Your task to perform on an android device: Open settings on Google Maps Image 0: 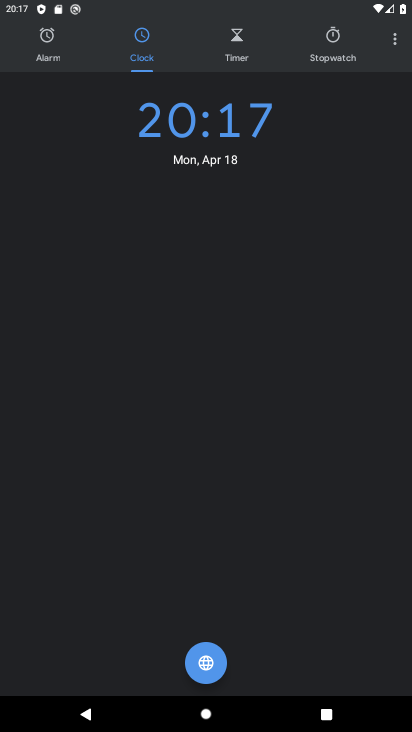
Step 0: press home button
Your task to perform on an android device: Open settings on Google Maps Image 1: 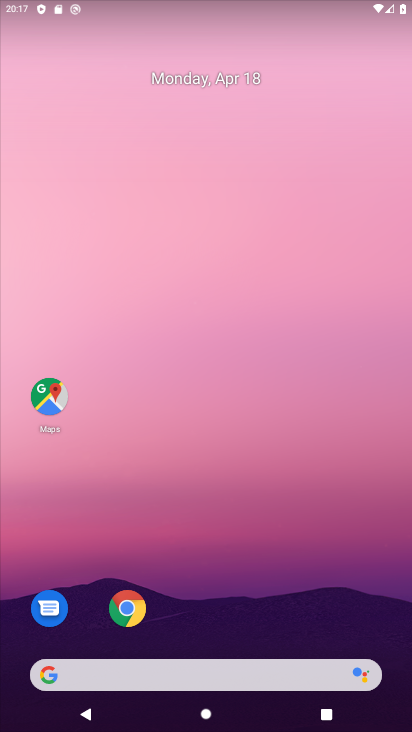
Step 1: click (45, 395)
Your task to perform on an android device: Open settings on Google Maps Image 2: 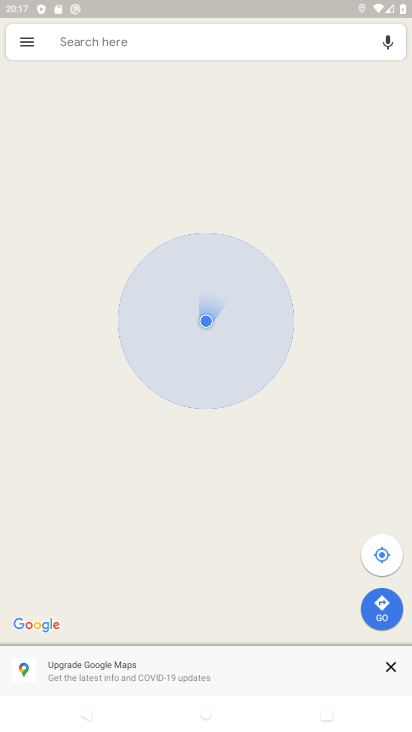
Step 2: click (27, 42)
Your task to perform on an android device: Open settings on Google Maps Image 3: 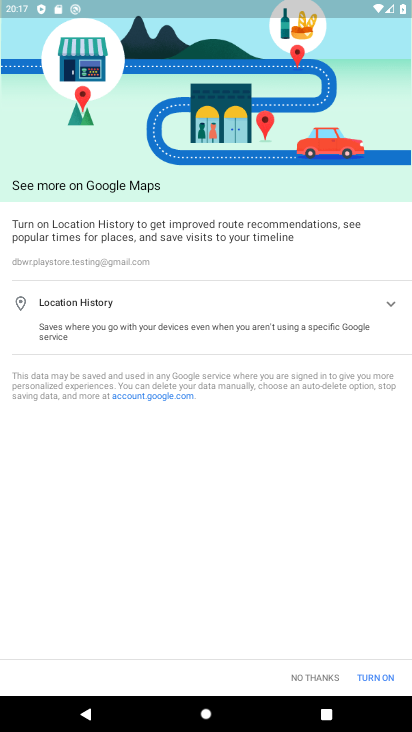
Step 3: click (308, 676)
Your task to perform on an android device: Open settings on Google Maps Image 4: 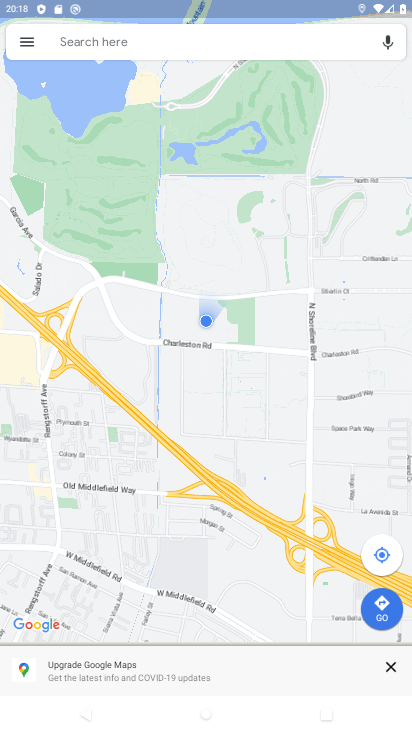
Step 4: click (23, 41)
Your task to perform on an android device: Open settings on Google Maps Image 5: 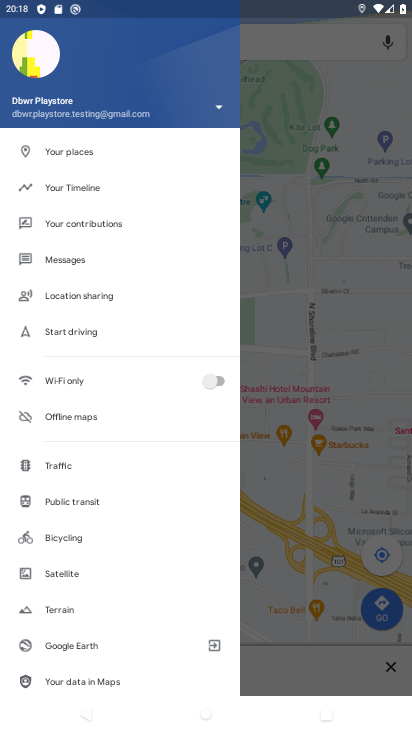
Step 5: drag from (114, 561) to (147, 259)
Your task to perform on an android device: Open settings on Google Maps Image 6: 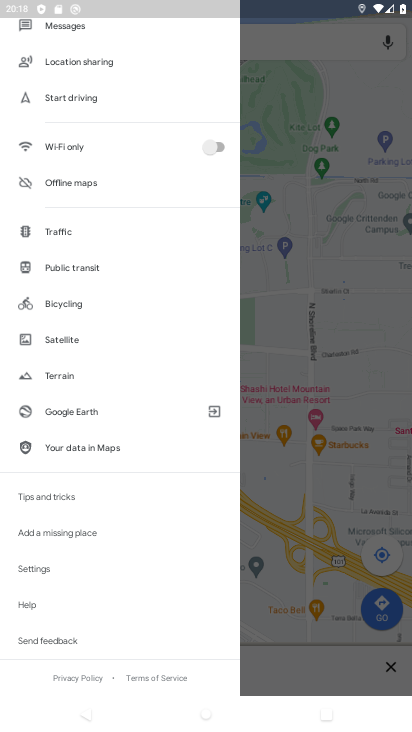
Step 6: click (36, 570)
Your task to perform on an android device: Open settings on Google Maps Image 7: 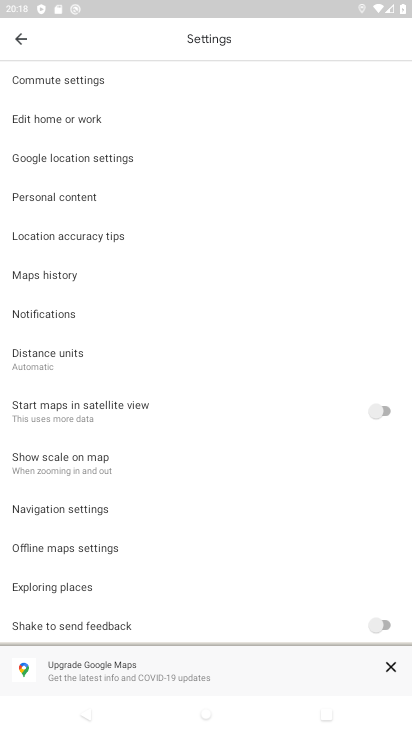
Step 7: task complete